Your task to perform on an android device: Open battery settings Image 0: 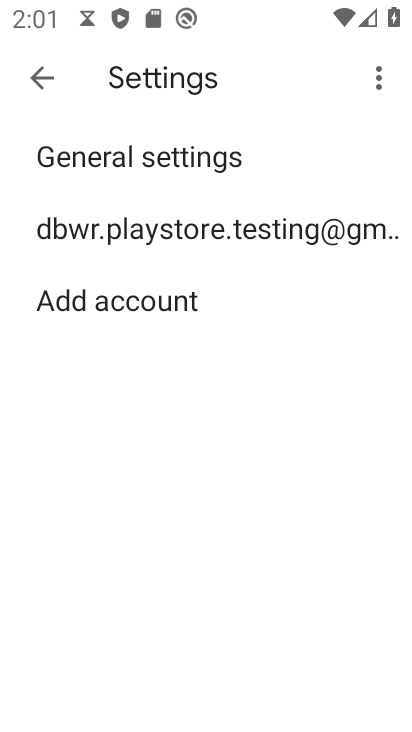
Step 0: press home button
Your task to perform on an android device: Open battery settings Image 1: 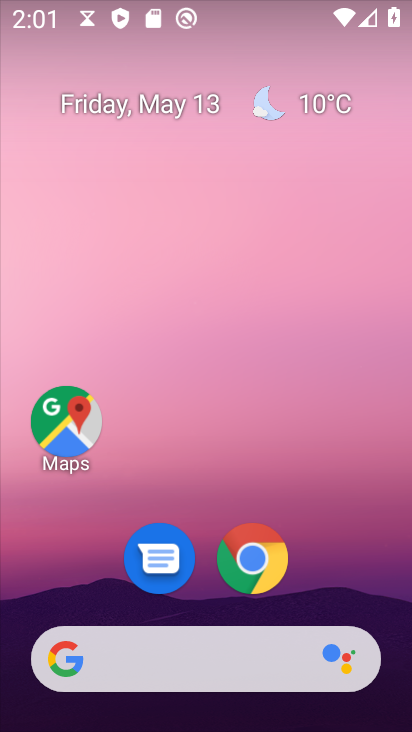
Step 1: drag from (197, 602) to (163, 260)
Your task to perform on an android device: Open battery settings Image 2: 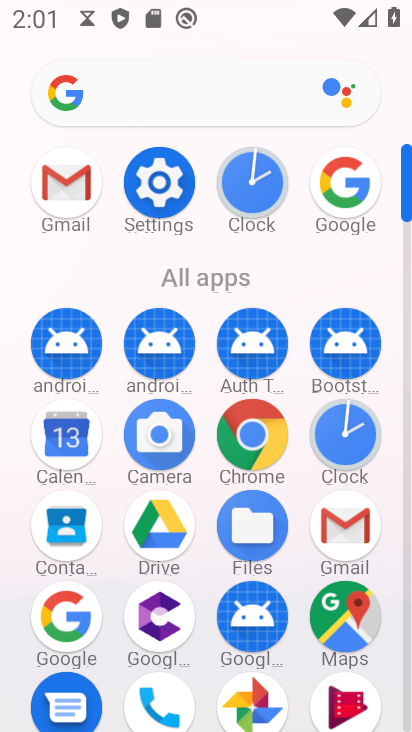
Step 2: click (171, 202)
Your task to perform on an android device: Open battery settings Image 3: 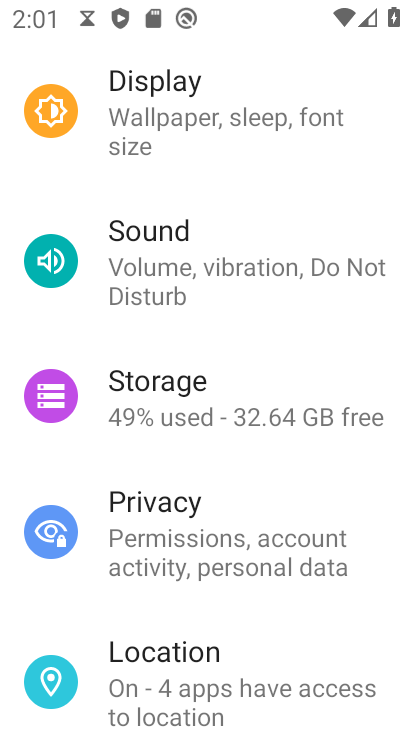
Step 3: drag from (261, 474) to (262, 231)
Your task to perform on an android device: Open battery settings Image 4: 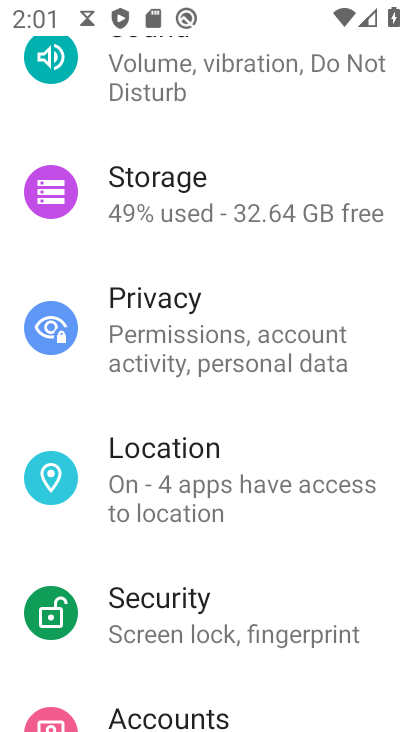
Step 4: drag from (238, 567) to (246, 261)
Your task to perform on an android device: Open battery settings Image 5: 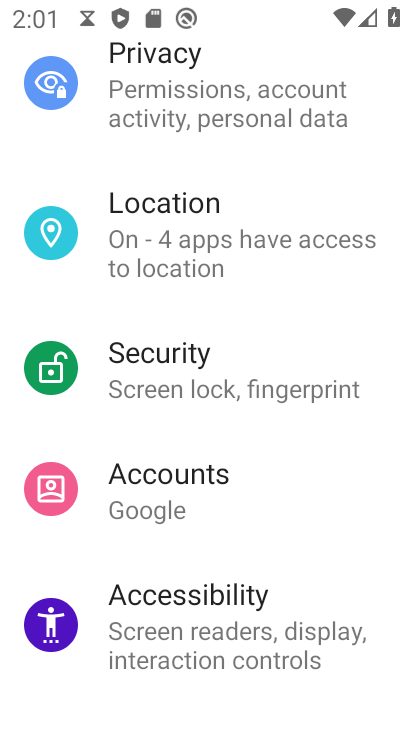
Step 5: drag from (251, 490) to (269, 239)
Your task to perform on an android device: Open battery settings Image 6: 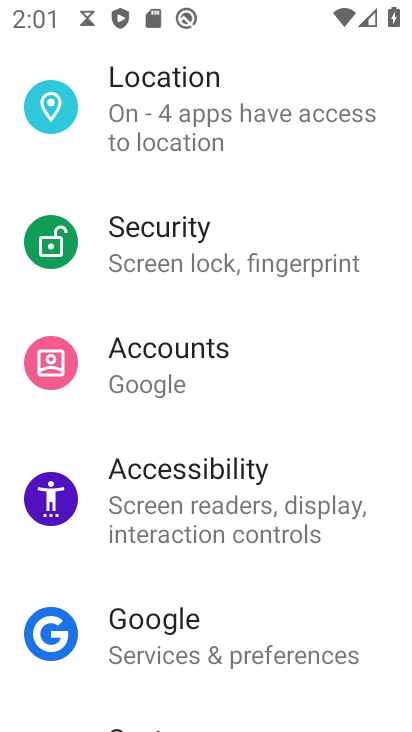
Step 6: drag from (278, 184) to (280, 482)
Your task to perform on an android device: Open battery settings Image 7: 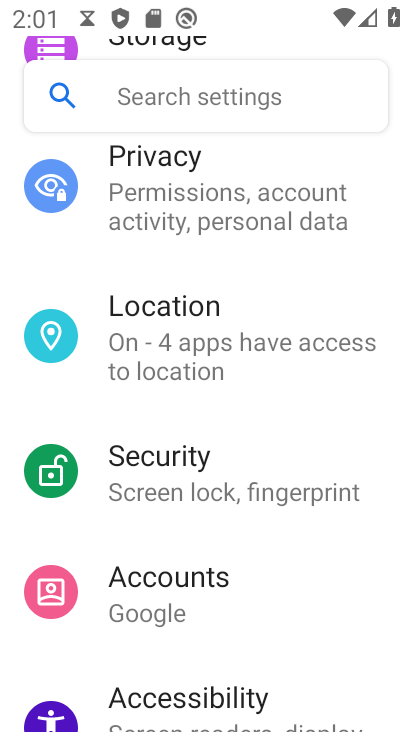
Step 7: drag from (256, 258) to (256, 526)
Your task to perform on an android device: Open battery settings Image 8: 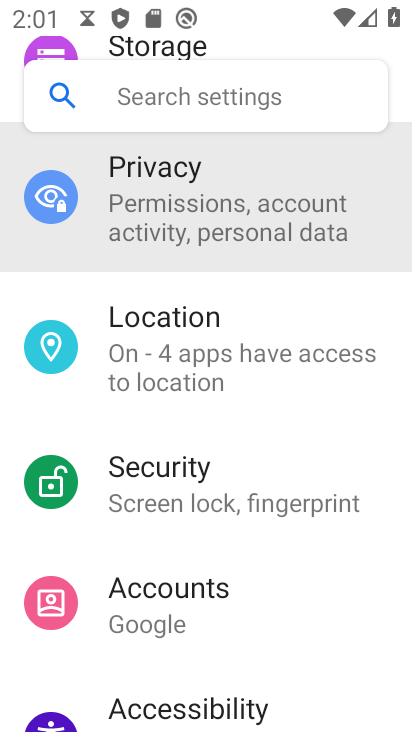
Step 8: drag from (220, 290) to (220, 513)
Your task to perform on an android device: Open battery settings Image 9: 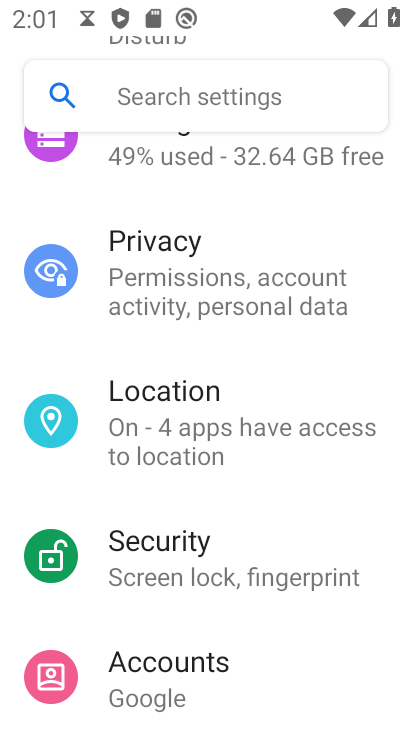
Step 9: drag from (239, 285) to (244, 486)
Your task to perform on an android device: Open battery settings Image 10: 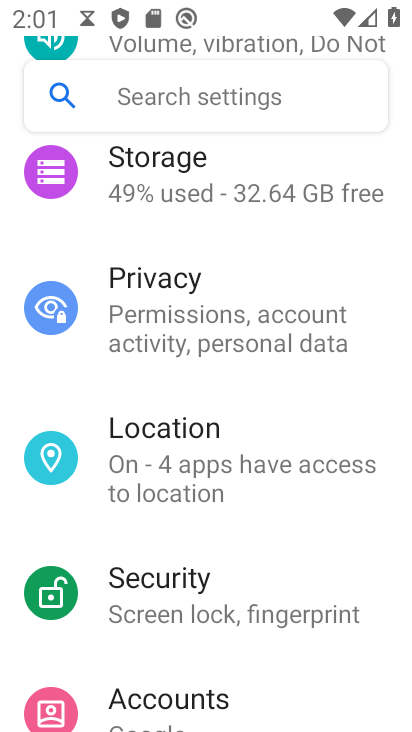
Step 10: click (276, 474)
Your task to perform on an android device: Open battery settings Image 11: 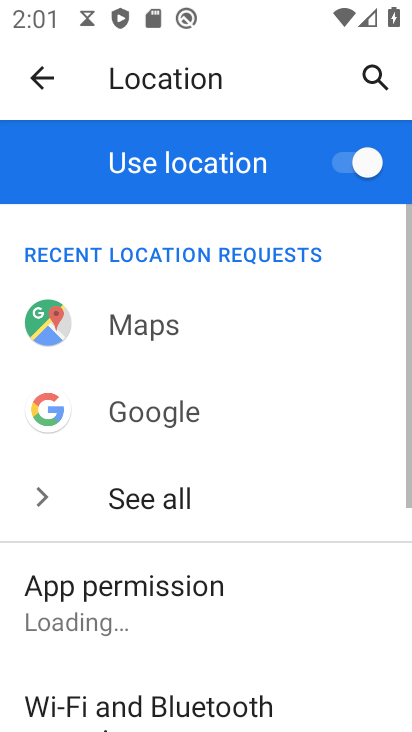
Step 11: drag from (273, 249) to (279, 408)
Your task to perform on an android device: Open battery settings Image 12: 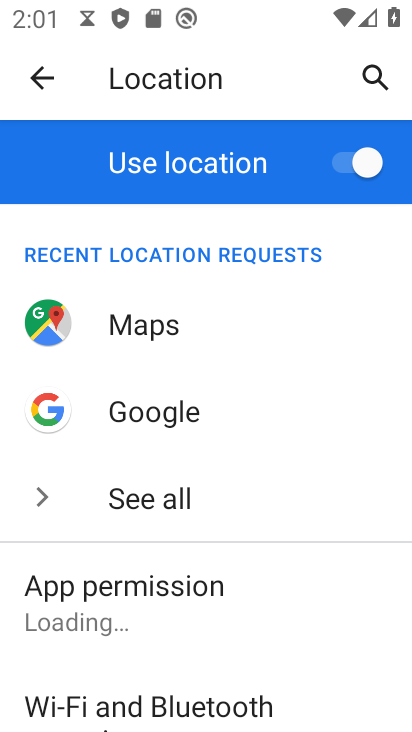
Step 12: click (37, 73)
Your task to perform on an android device: Open battery settings Image 13: 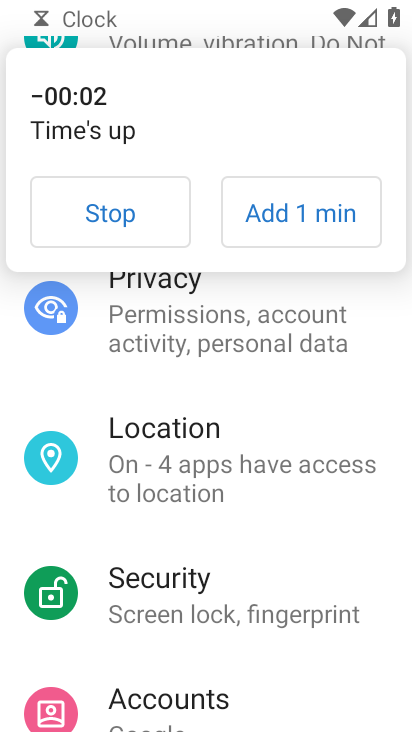
Step 13: click (149, 216)
Your task to perform on an android device: Open battery settings Image 14: 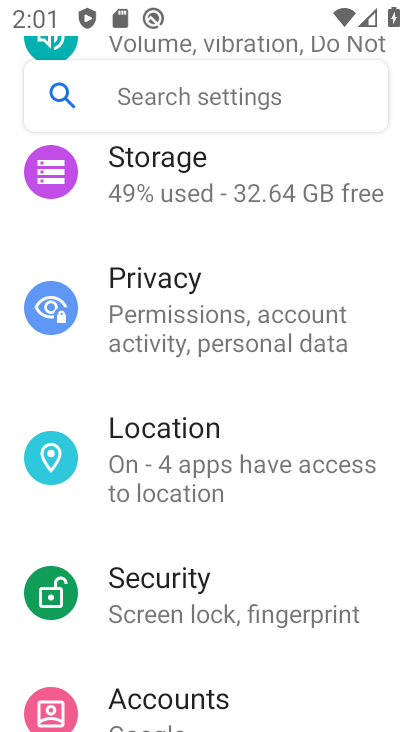
Step 14: drag from (216, 259) to (240, 537)
Your task to perform on an android device: Open battery settings Image 15: 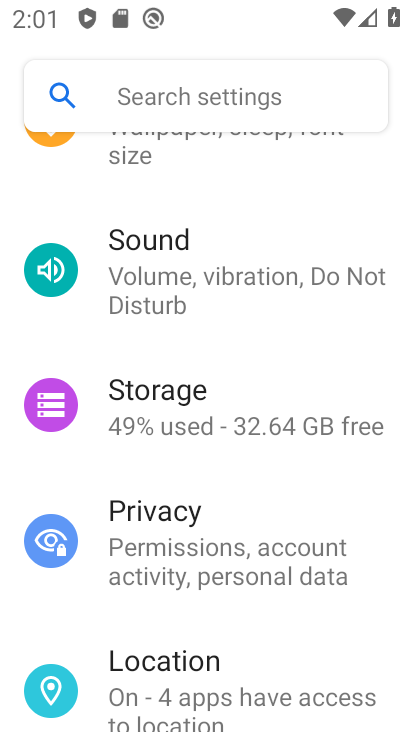
Step 15: drag from (240, 278) to (263, 529)
Your task to perform on an android device: Open battery settings Image 16: 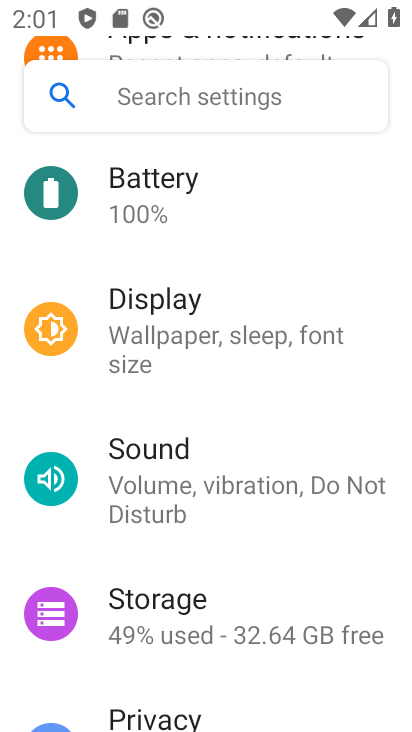
Step 16: click (202, 198)
Your task to perform on an android device: Open battery settings Image 17: 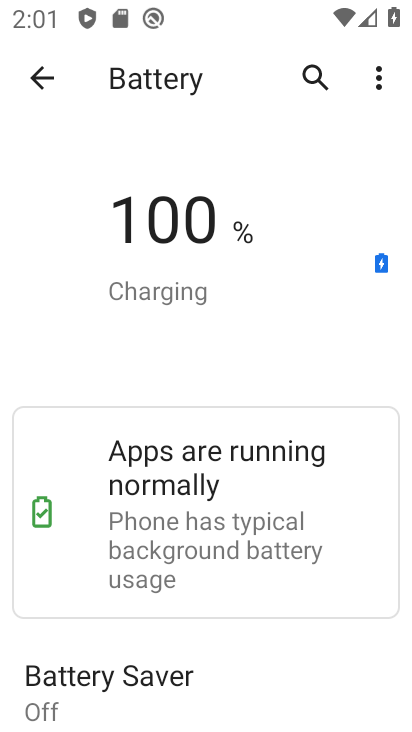
Step 17: task complete